Your task to perform on an android device: Open wifi settings Image 0: 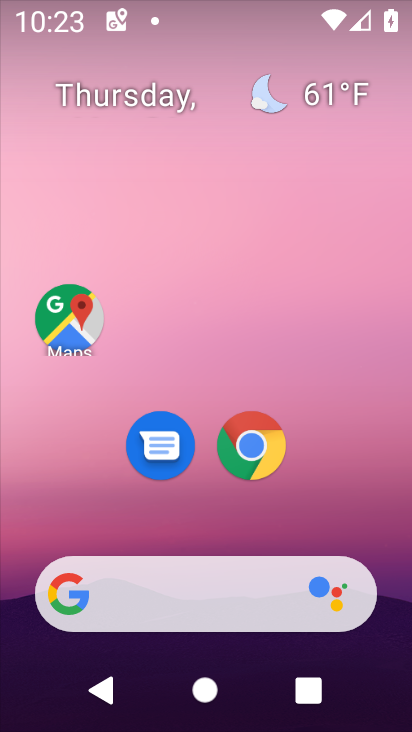
Step 0: drag from (209, 535) to (194, 41)
Your task to perform on an android device: Open wifi settings Image 1: 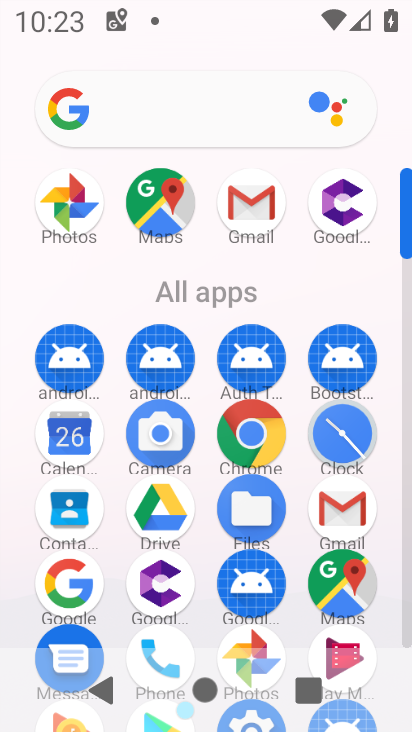
Step 1: drag from (194, 484) to (195, 99)
Your task to perform on an android device: Open wifi settings Image 2: 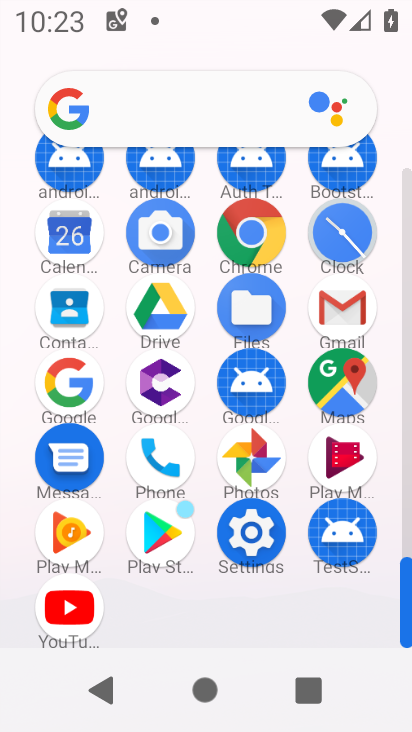
Step 2: click (247, 538)
Your task to perform on an android device: Open wifi settings Image 3: 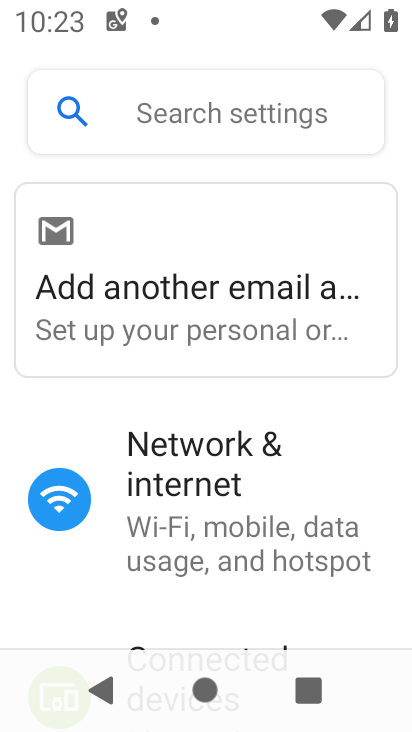
Step 3: click (193, 520)
Your task to perform on an android device: Open wifi settings Image 4: 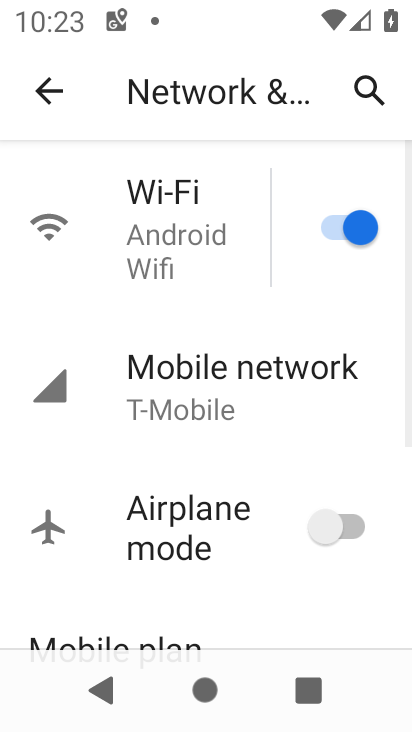
Step 4: click (5, 217)
Your task to perform on an android device: Open wifi settings Image 5: 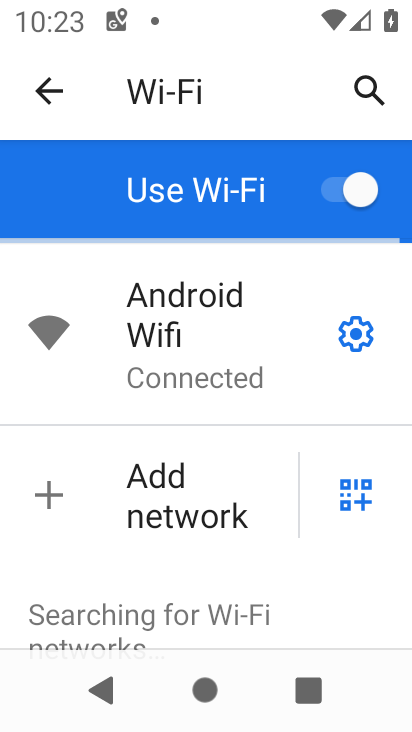
Step 5: task complete